Your task to perform on an android device: Go to Google maps Image 0: 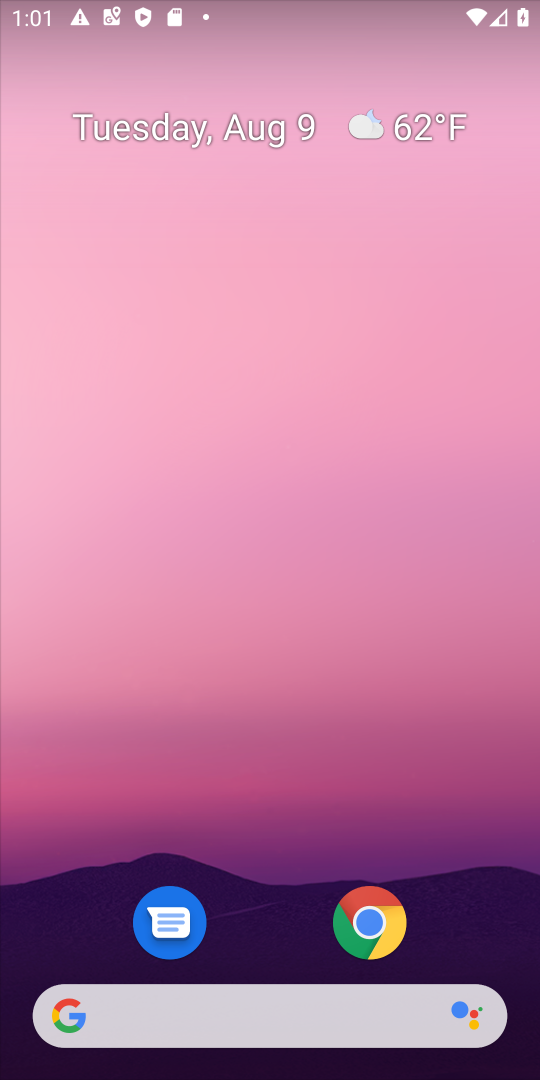
Step 0: drag from (282, 957) to (142, 259)
Your task to perform on an android device: Go to Google maps Image 1: 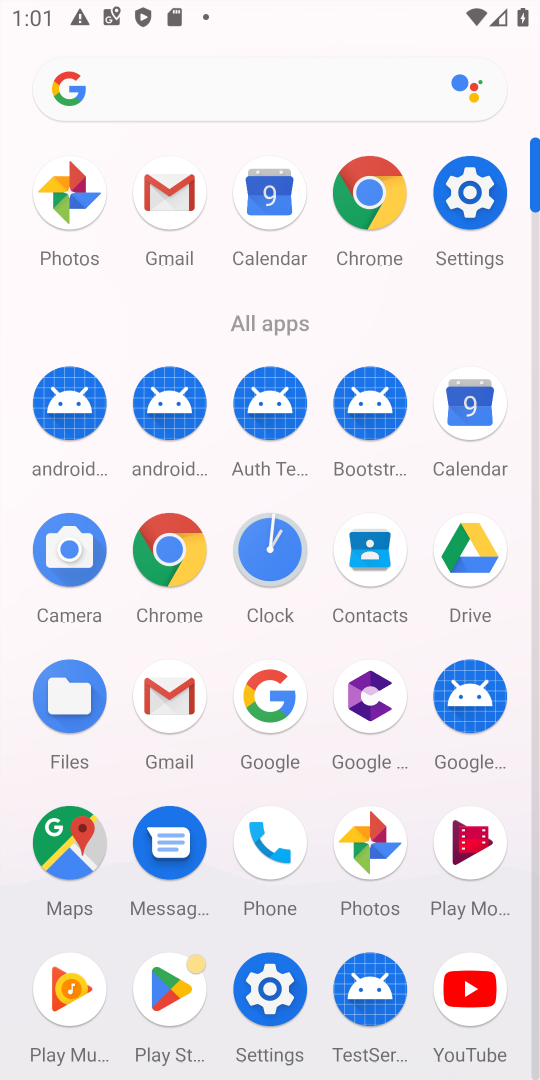
Step 1: click (85, 854)
Your task to perform on an android device: Go to Google maps Image 2: 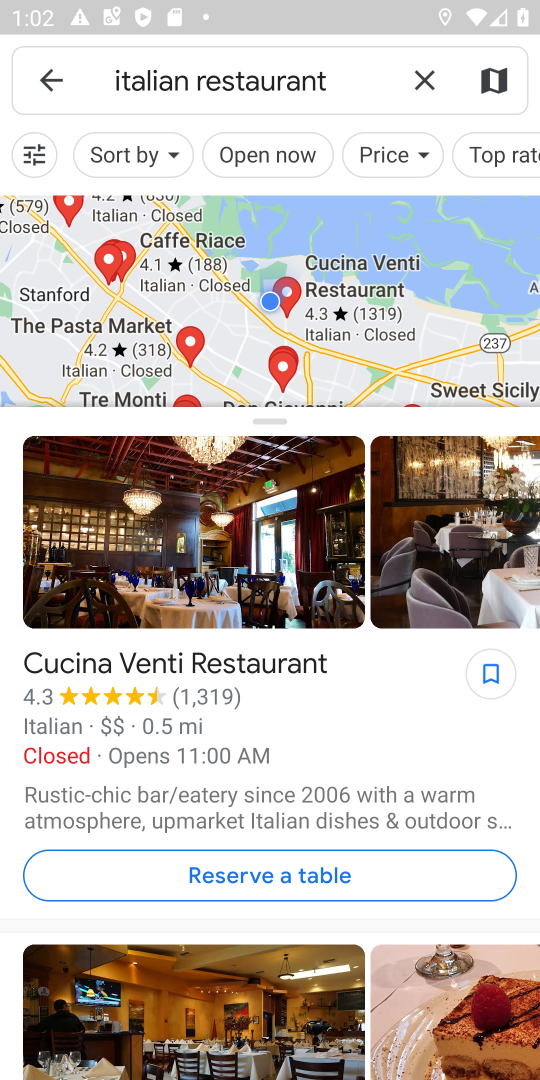
Step 2: task complete